Your task to perform on an android device: set default search engine in the chrome app Image 0: 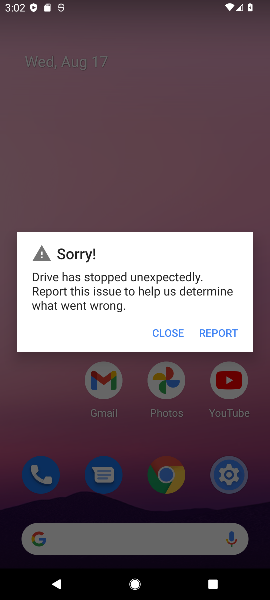
Step 0: click (11, 426)
Your task to perform on an android device: set default search engine in the chrome app Image 1: 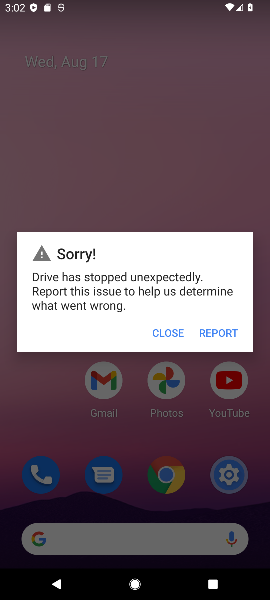
Step 1: click (168, 336)
Your task to perform on an android device: set default search engine in the chrome app Image 2: 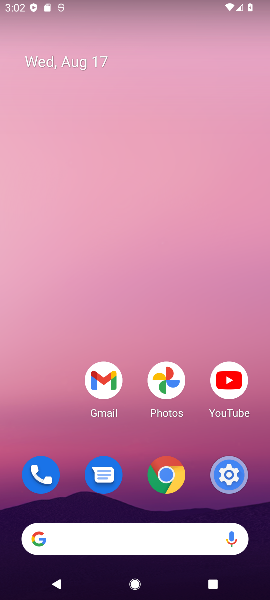
Step 2: click (152, 480)
Your task to perform on an android device: set default search engine in the chrome app Image 3: 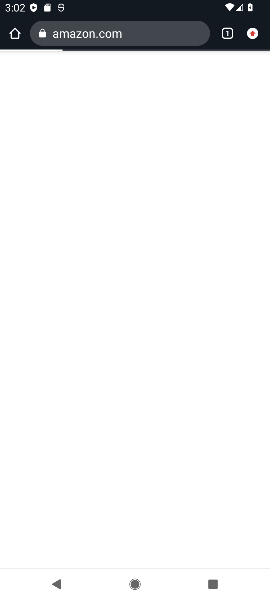
Step 3: click (244, 33)
Your task to perform on an android device: set default search engine in the chrome app Image 4: 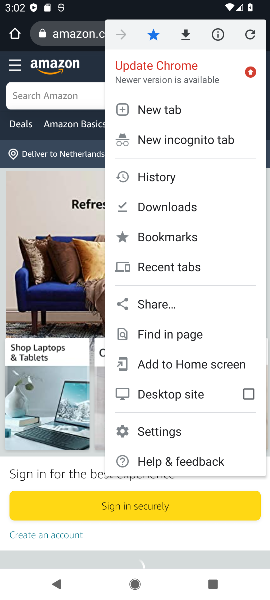
Step 4: click (140, 429)
Your task to perform on an android device: set default search engine in the chrome app Image 5: 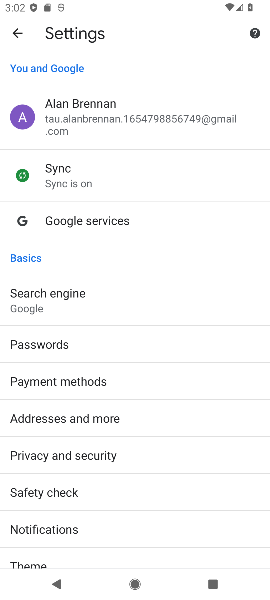
Step 5: click (47, 299)
Your task to perform on an android device: set default search engine in the chrome app Image 6: 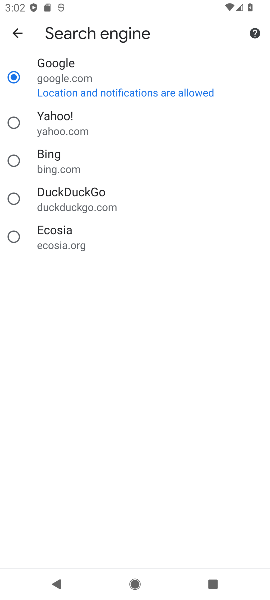
Step 6: click (15, 76)
Your task to perform on an android device: set default search engine in the chrome app Image 7: 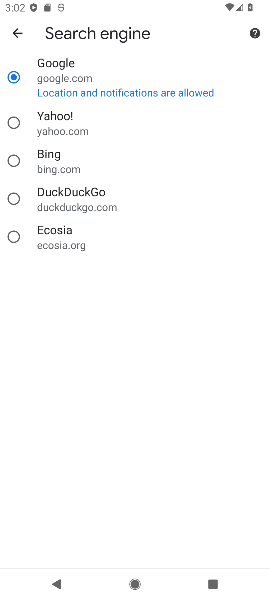
Step 7: task complete